Your task to perform on an android device: What is the recent news? Image 0: 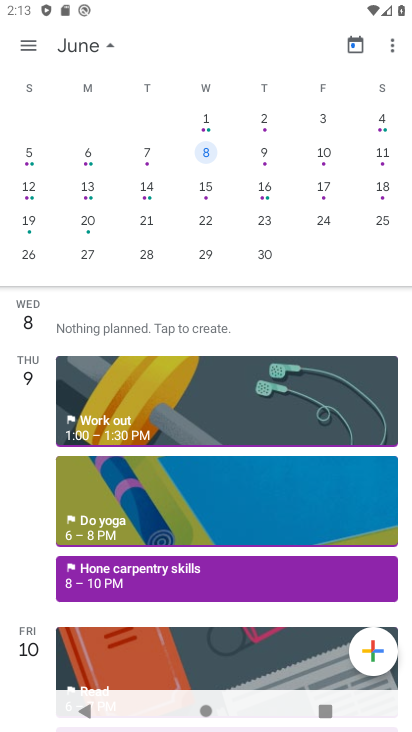
Step 0: press home button
Your task to perform on an android device: What is the recent news? Image 1: 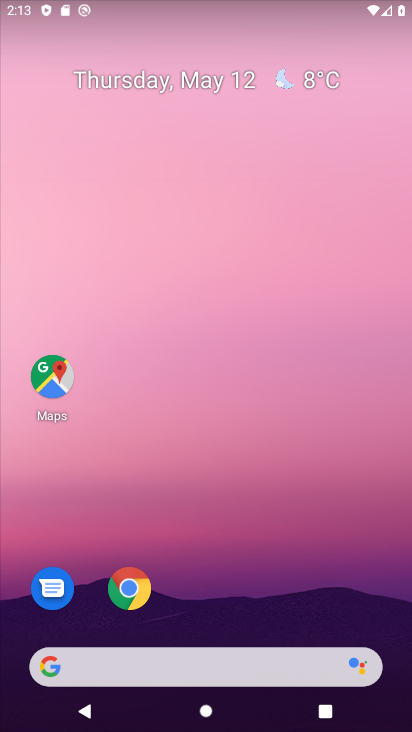
Step 1: click (189, 664)
Your task to perform on an android device: What is the recent news? Image 2: 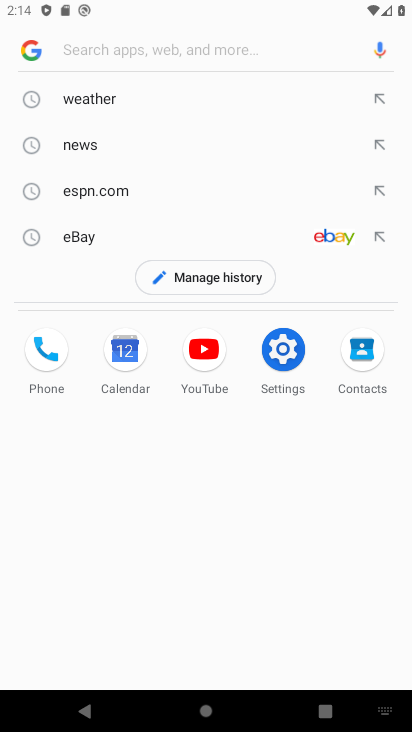
Step 2: click (151, 144)
Your task to perform on an android device: What is the recent news? Image 3: 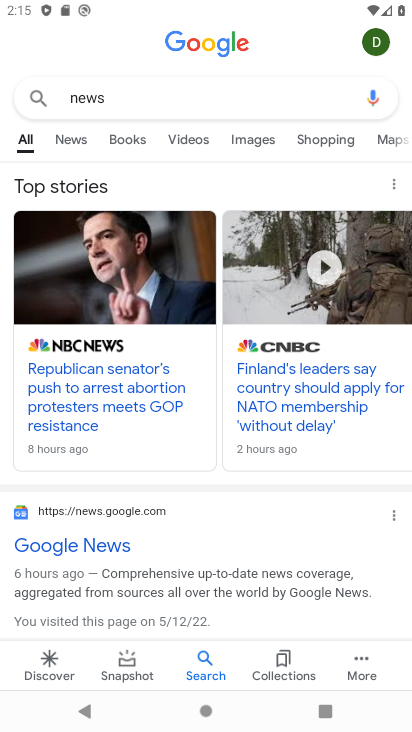
Step 3: task complete